Your task to perform on an android device: visit the assistant section in the google photos Image 0: 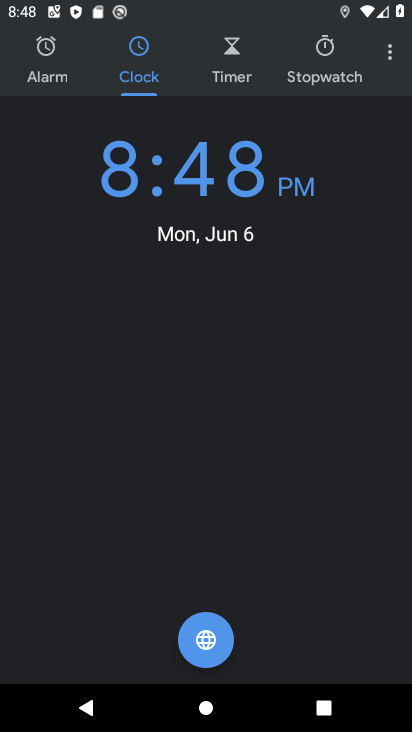
Step 0: press home button
Your task to perform on an android device: visit the assistant section in the google photos Image 1: 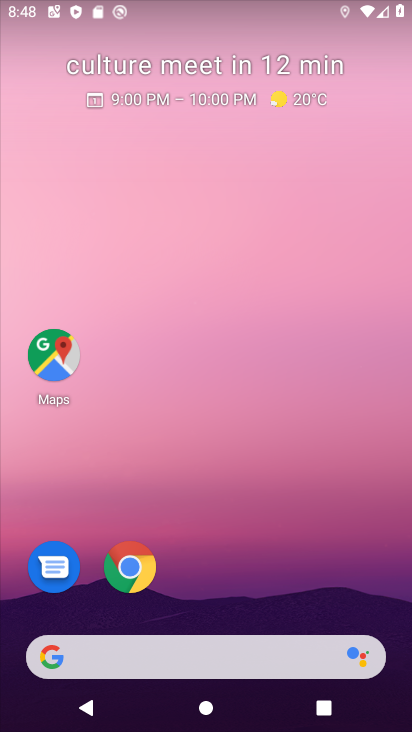
Step 1: drag from (171, 568) to (165, 51)
Your task to perform on an android device: visit the assistant section in the google photos Image 2: 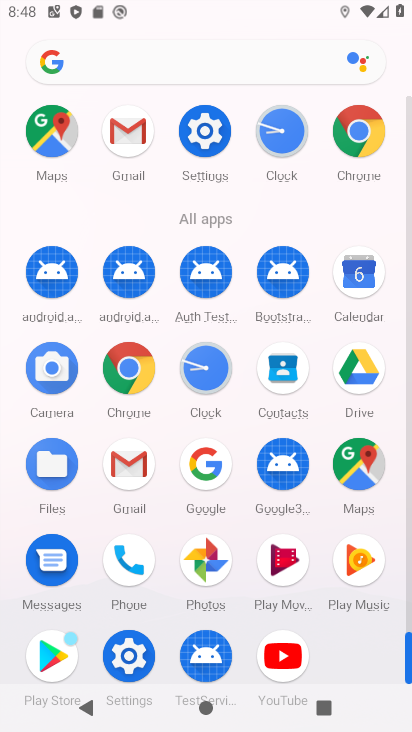
Step 2: click (196, 564)
Your task to perform on an android device: visit the assistant section in the google photos Image 3: 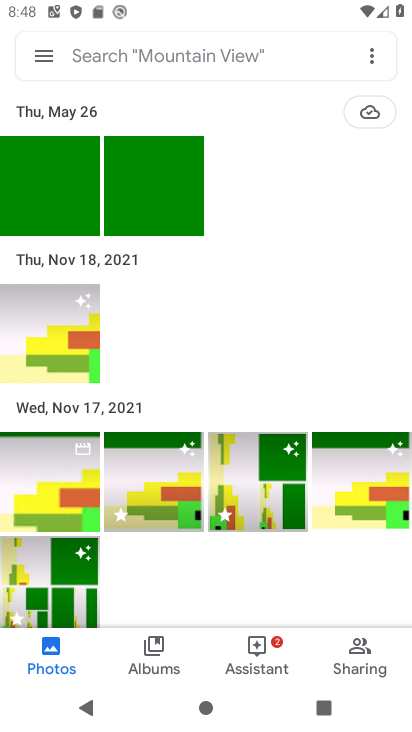
Step 3: click (269, 648)
Your task to perform on an android device: visit the assistant section in the google photos Image 4: 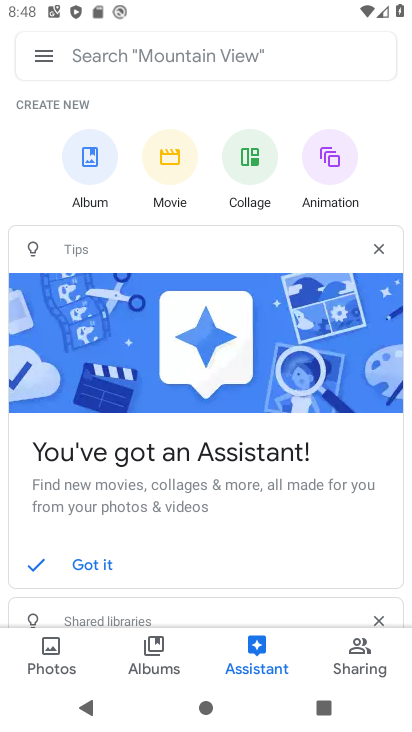
Step 4: task complete